Your task to perform on an android device: check battery use Image 0: 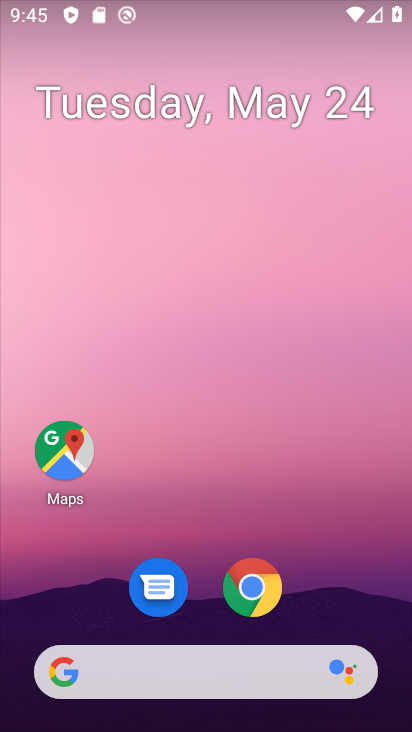
Step 0: press home button
Your task to perform on an android device: check battery use Image 1: 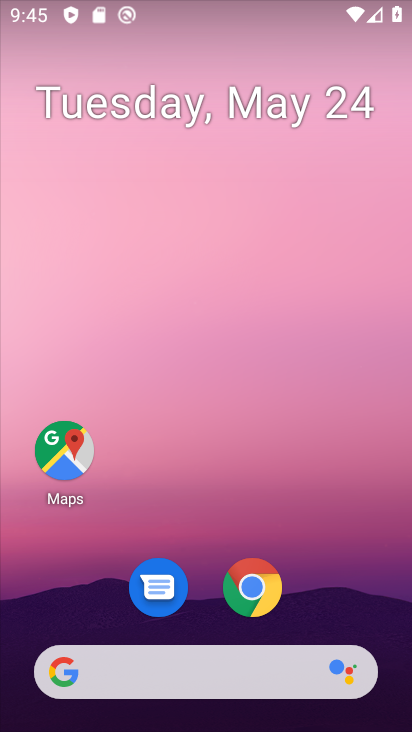
Step 1: drag from (362, 575) to (130, 34)
Your task to perform on an android device: check battery use Image 2: 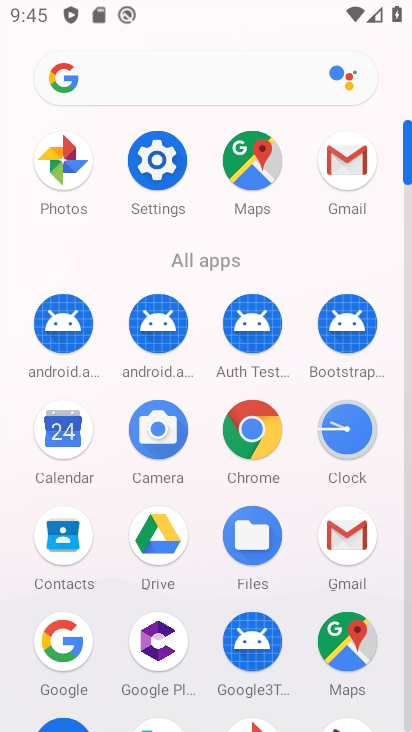
Step 2: click (153, 158)
Your task to perform on an android device: check battery use Image 3: 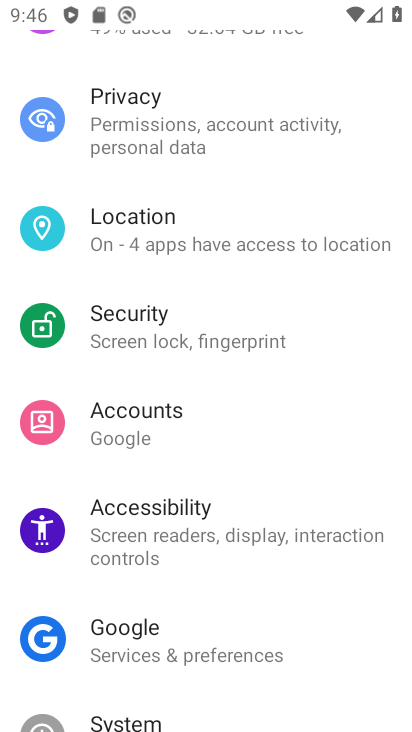
Step 3: drag from (150, 154) to (221, 717)
Your task to perform on an android device: check battery use Image 4: 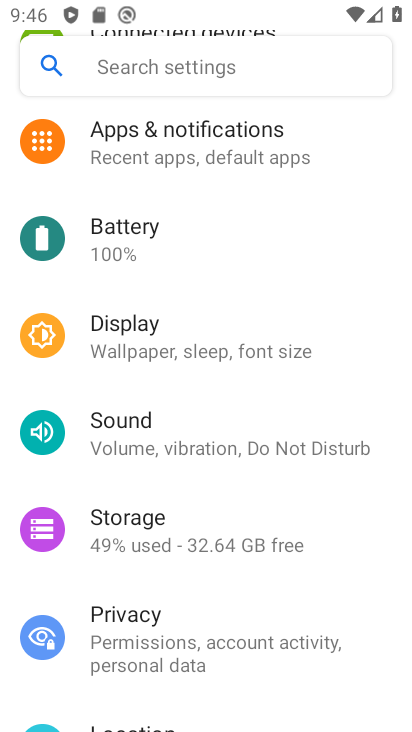
Step 4: click (122, 251)
Your task to perform on an android device: check battery use Image 5: 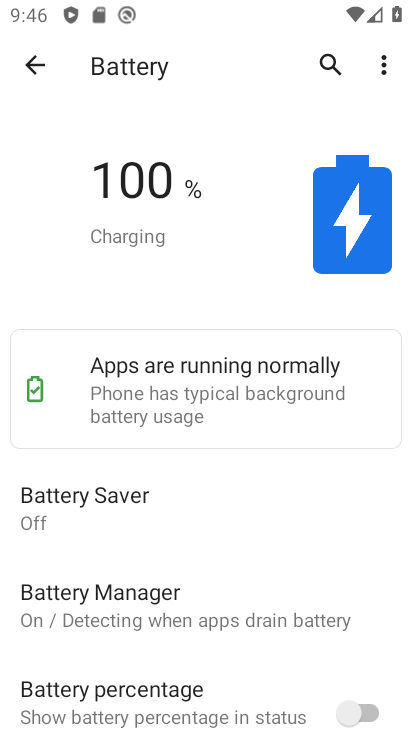
Step 5: task complete